Your task to perform on an android device: add a contact in the contacts app Image 0: 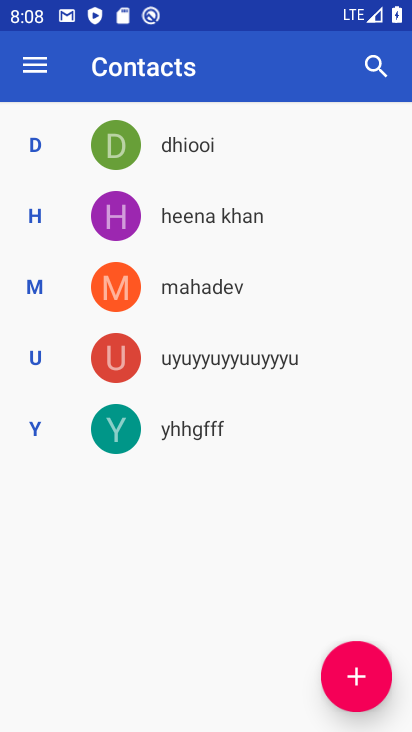
Step 0: press home button
Your task to perform on an android device: add a contact in the contacts app Image 1: 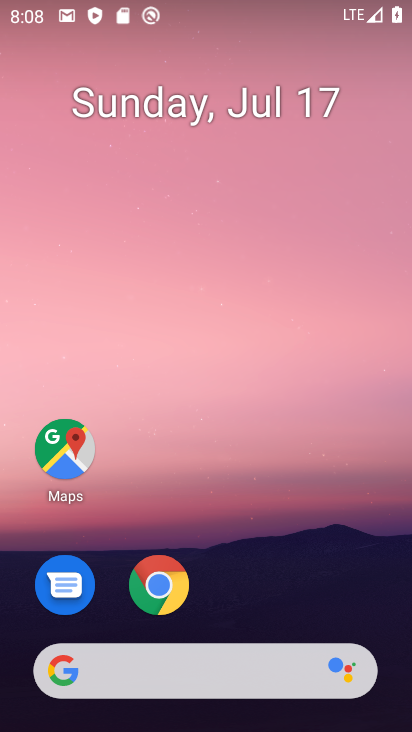
Step 1: drag from (177, 657) to (306, 1)
Your task to perform on an android device: add a contact in the contacts app Image 2: 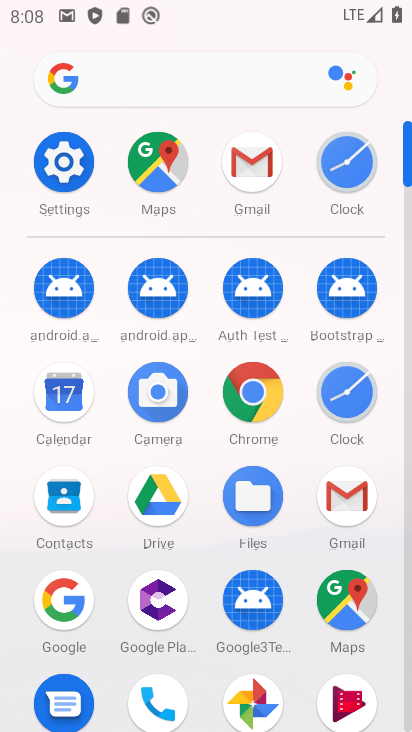
Step 2: click (55, 503)
Your task to perform on an android device: add a contact in the contacts app Image 3: 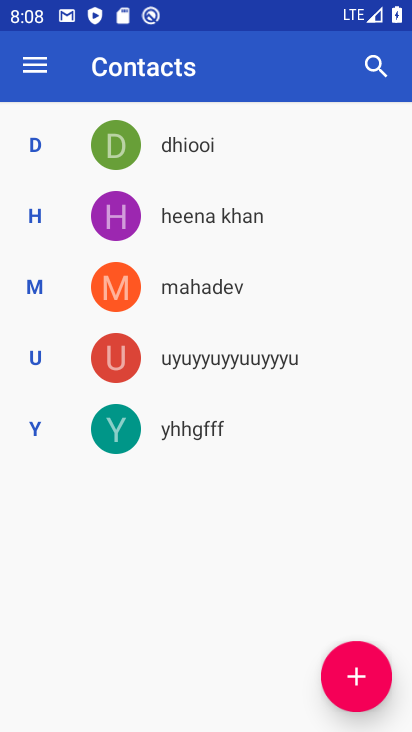
Step 3: click (354, 668)
Your task to perform on an android device: add a contact in the contacts app Image 4: 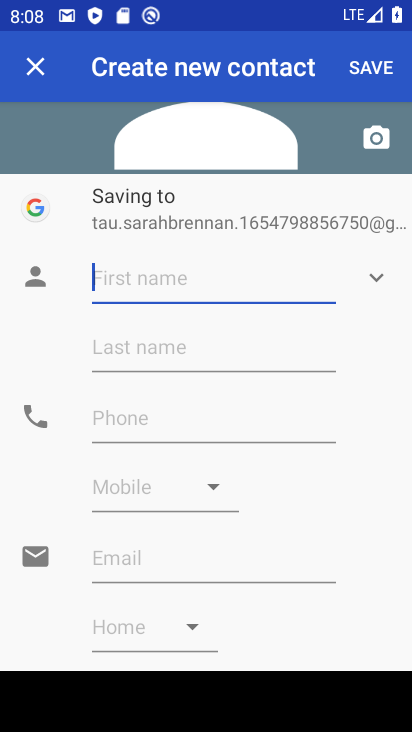
Step 4: type "erffgytvh"
Your task to perform on an android device: add a contact in the contacts app Image 5: 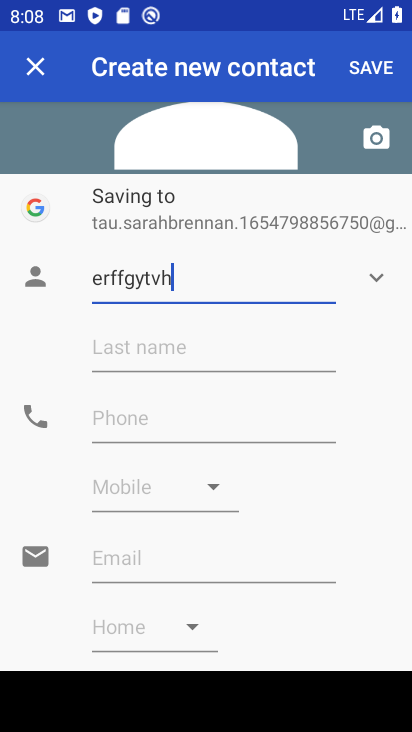
Step 5: click (127, 417)
Your task to perform on an android device: add a contact in the contacts app Image 6: 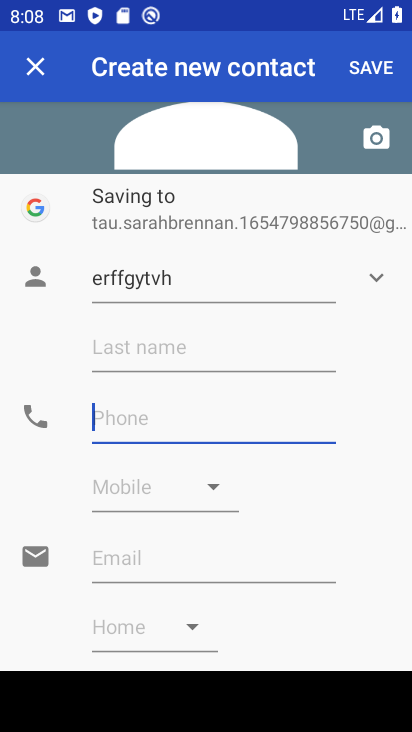
Step 6: type "1874658394757"
Your task to perform on an android device: add a contact in the contacts app Image 7: 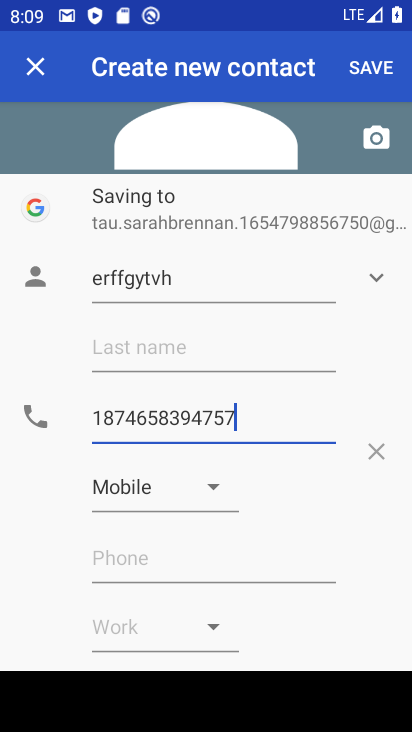
Step 7: click (380, 70)
Your task to perform on an android device: add a contact in the contacts app Image 8: 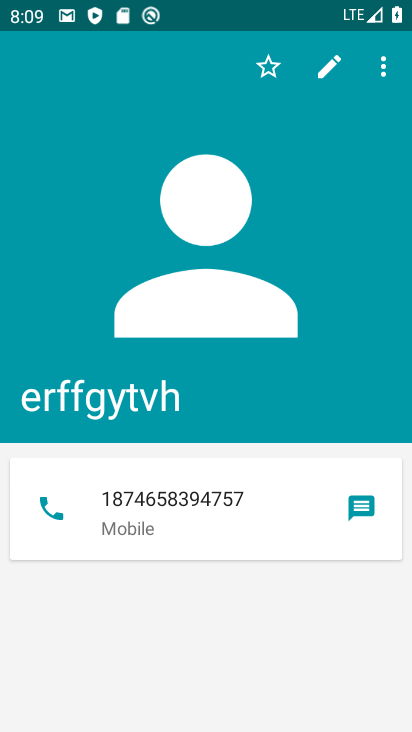
Step 8: task complete